Your task to perform on an android device: set the timer Image 0: 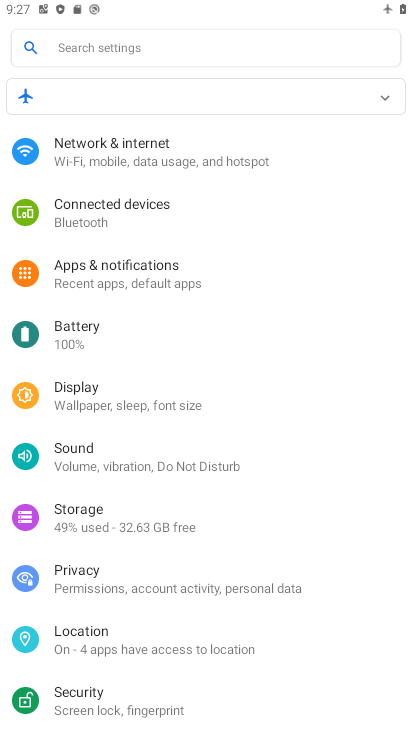
Step 0: press home button
Your task to perform on an android device: set the timer Image 1: 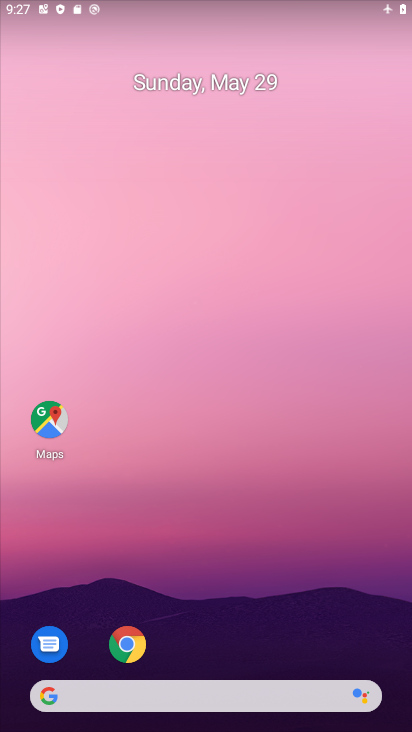
Step 1: drag from (267, 610) to (311, 299)
Your task to perform on an android device: set the timer Image 2: 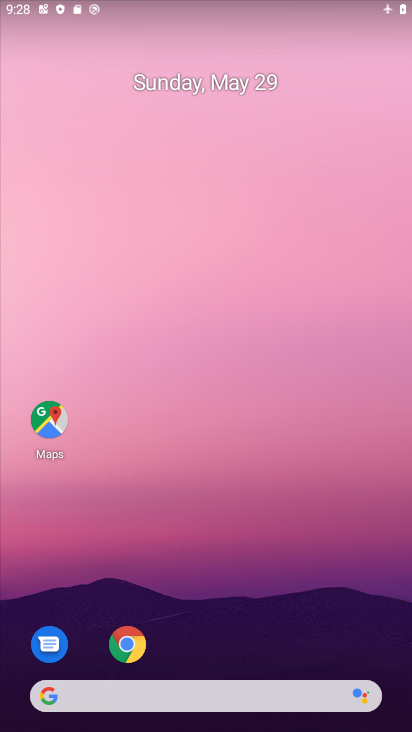
Step 2: drag from (283, 617) to (326, 104)
Your task to perform on an android device: set the timer Image 3: 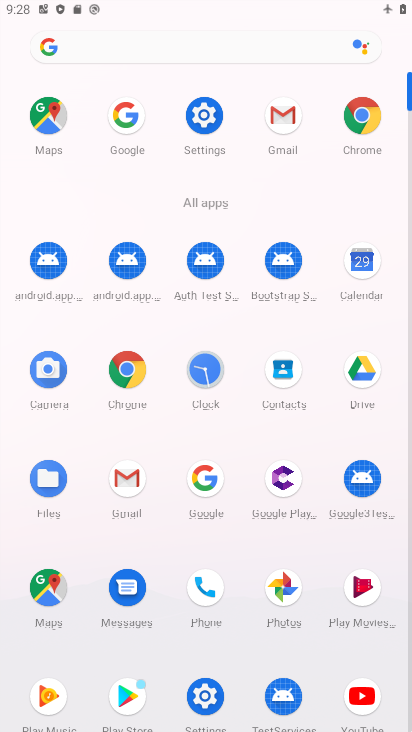
Step 3: click (195, 366)
Your task to perform on an android device: set the timer Image 4: 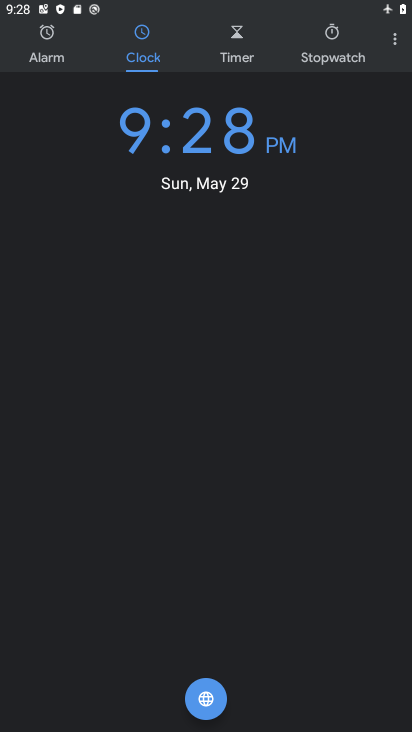
Step 4: click (231, 51)
Your task to perform on an android device: set the timer Image 5: 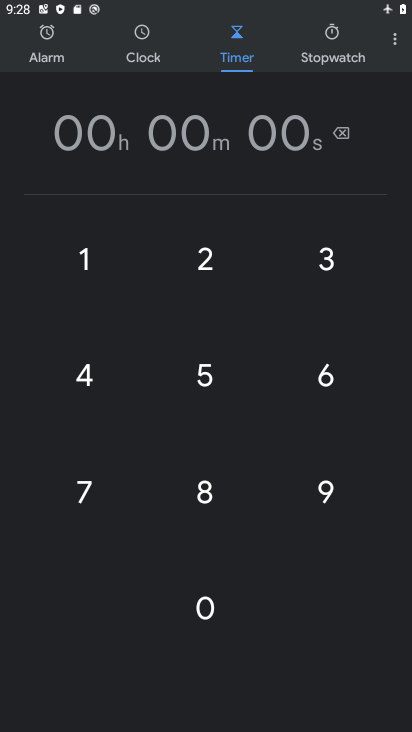
Step 5: click (208, 145)
Your task to perform on an android device: set the timer Image 6: 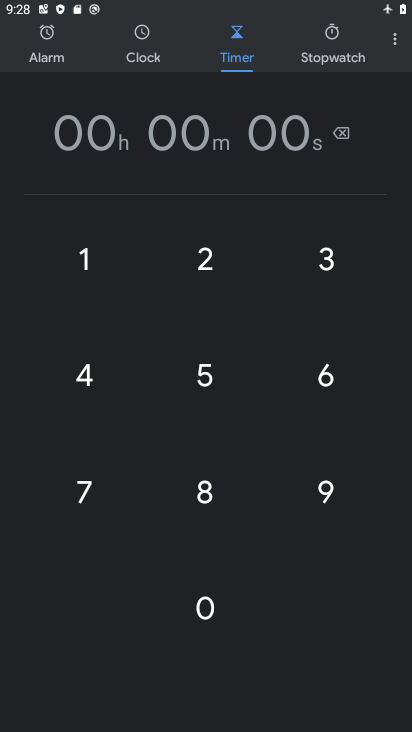
Step 6: type "76767676767"
Your task to perform on an android device: set the timer Image 7: 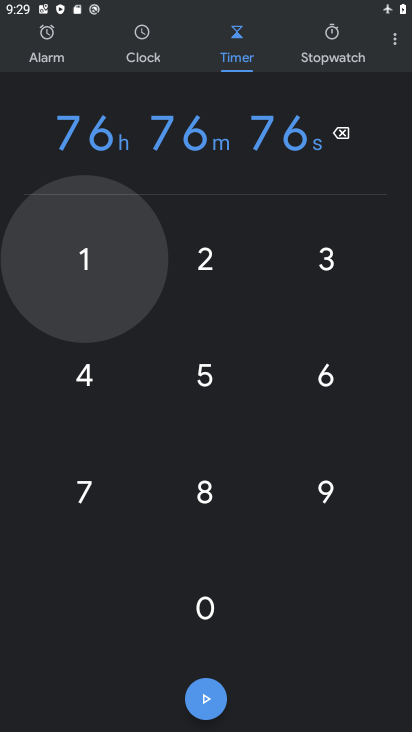
Step 7: click (207, 690)
Your task to perform on an android device: set the timer Image 8: 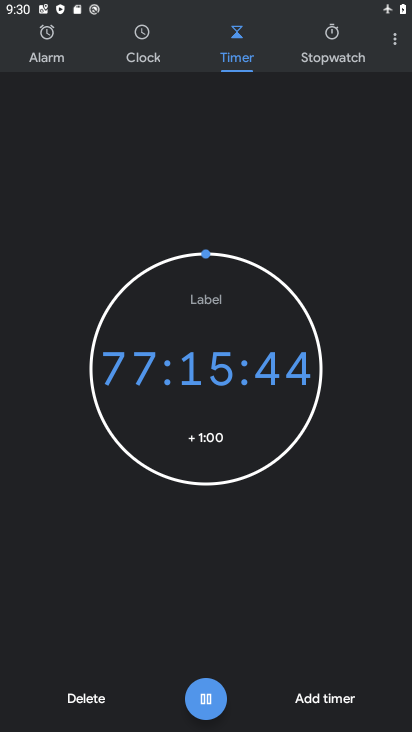
Step 8: task complete